Your task to perform on an android device: What's the news in India? Image 0: 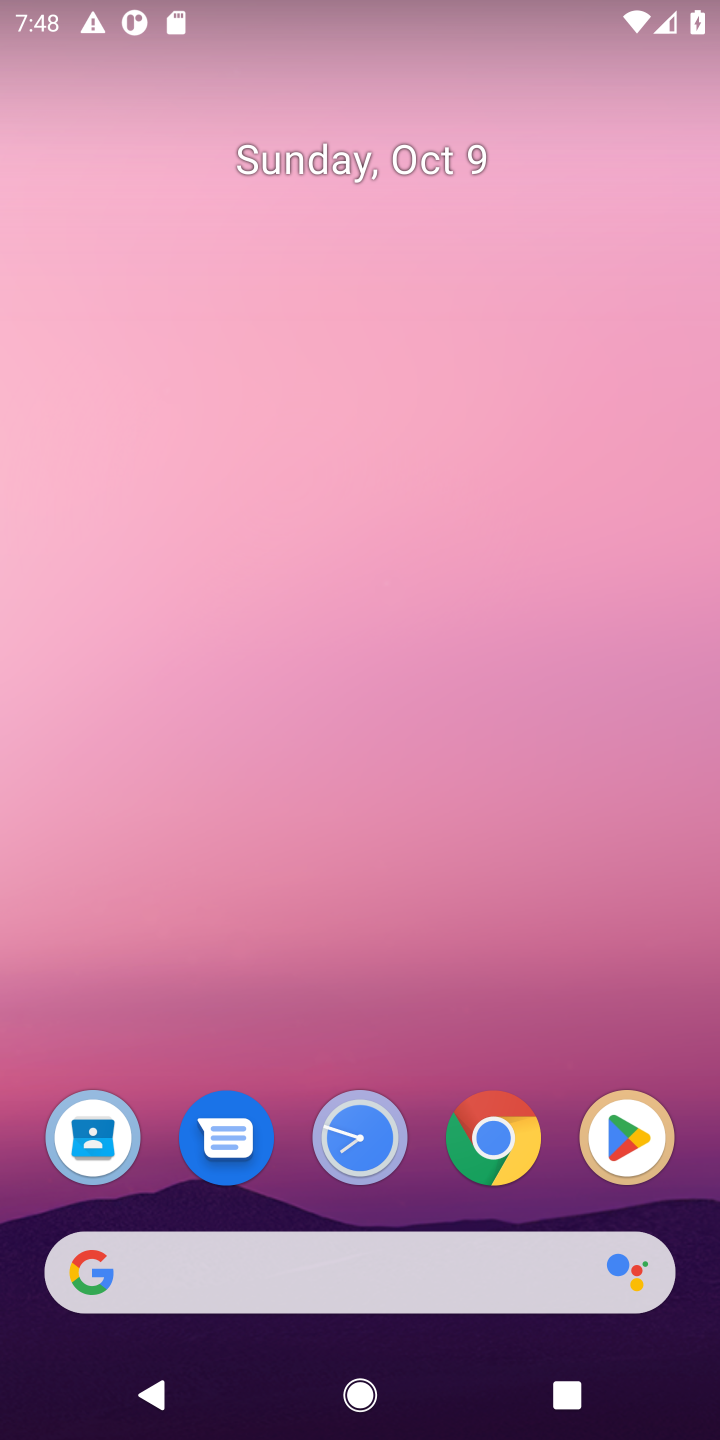
Step 0: drag from (299, 1163) to (301, 633)
Your task to perform on an android device: What's the news in India? Image 1: 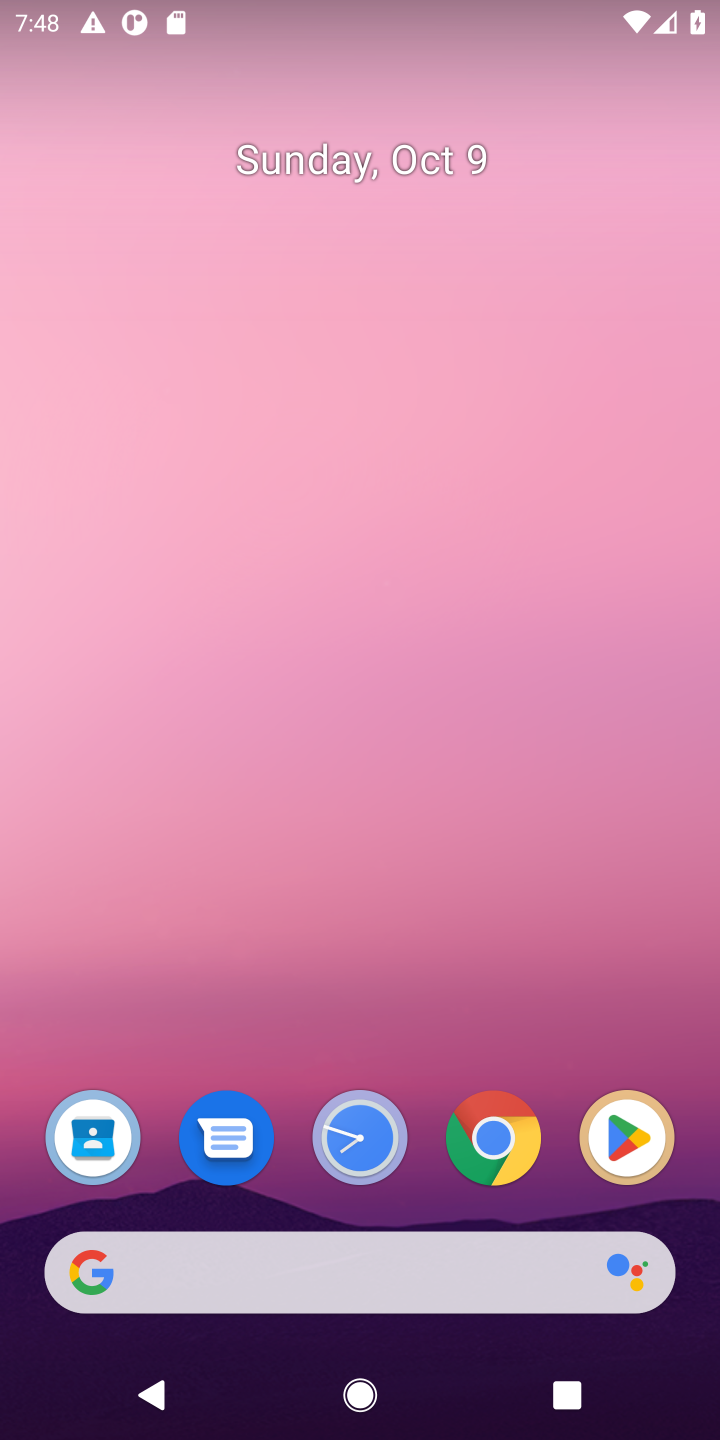
Step 1: drag from (292, 1229) to (302, 371)
Your task to perform on an android device: What's the news in India? Image 2: 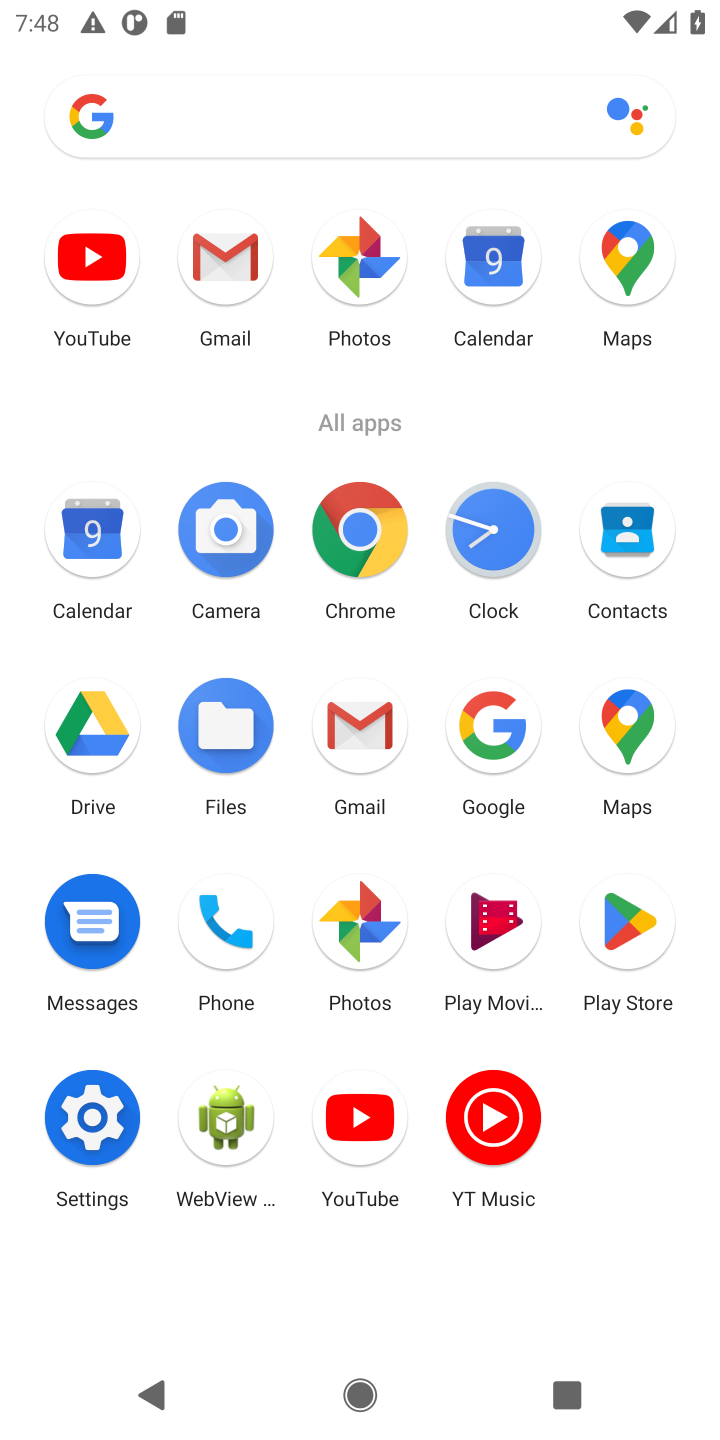
Step 2: click (484, 711)
Your task to perform on an android device: What's the news in India? Image 3: 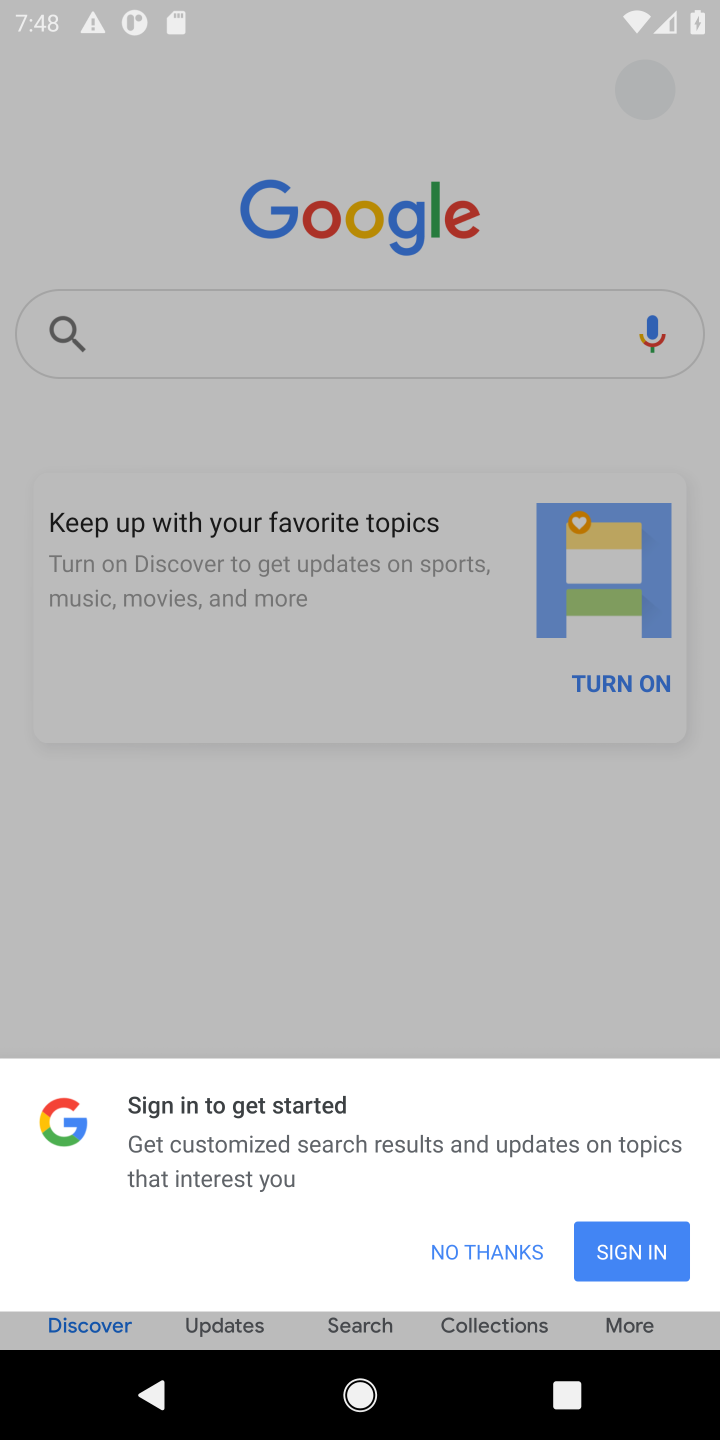
Step 3: click (265, 310)
Your task to perform on an android device: What's the news in India? Image 4: 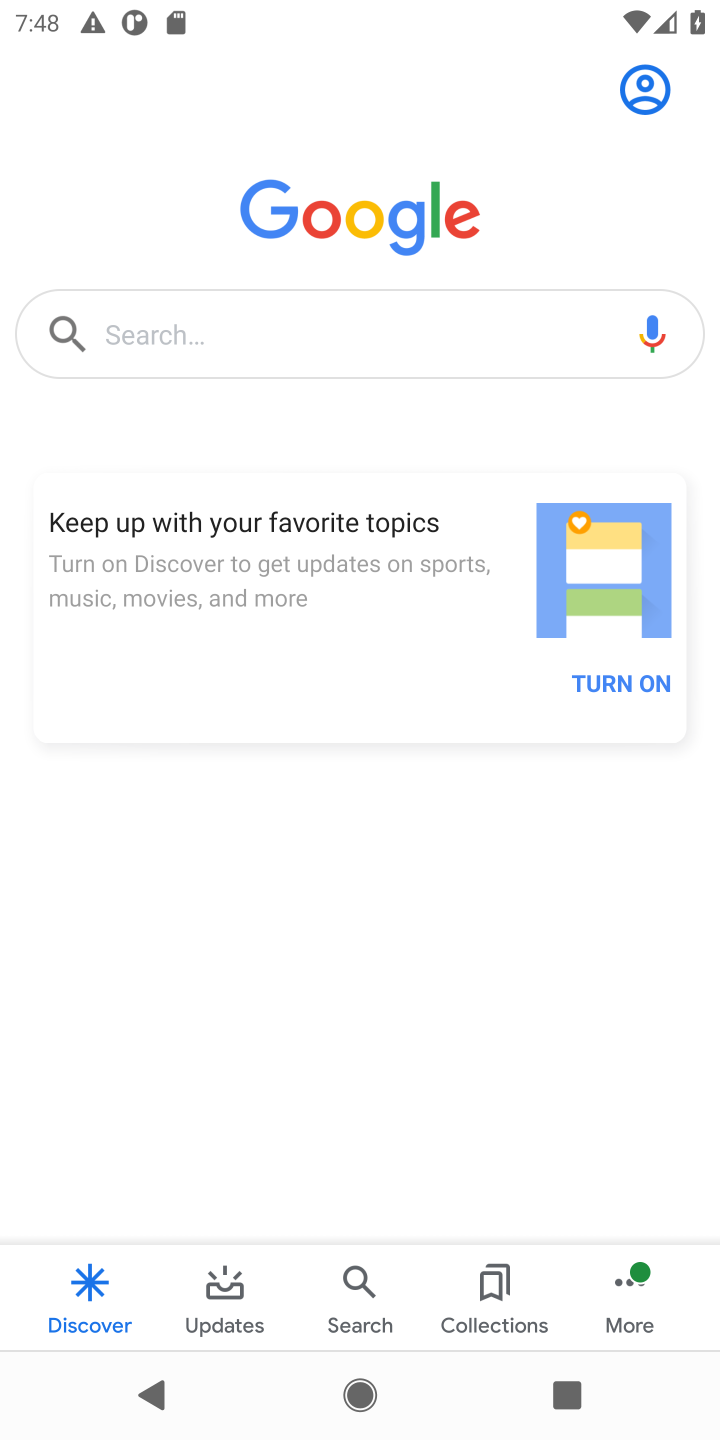
Step 4: click (354, 309)
Your task to perform on an android device: What's the news in India? Image 5: 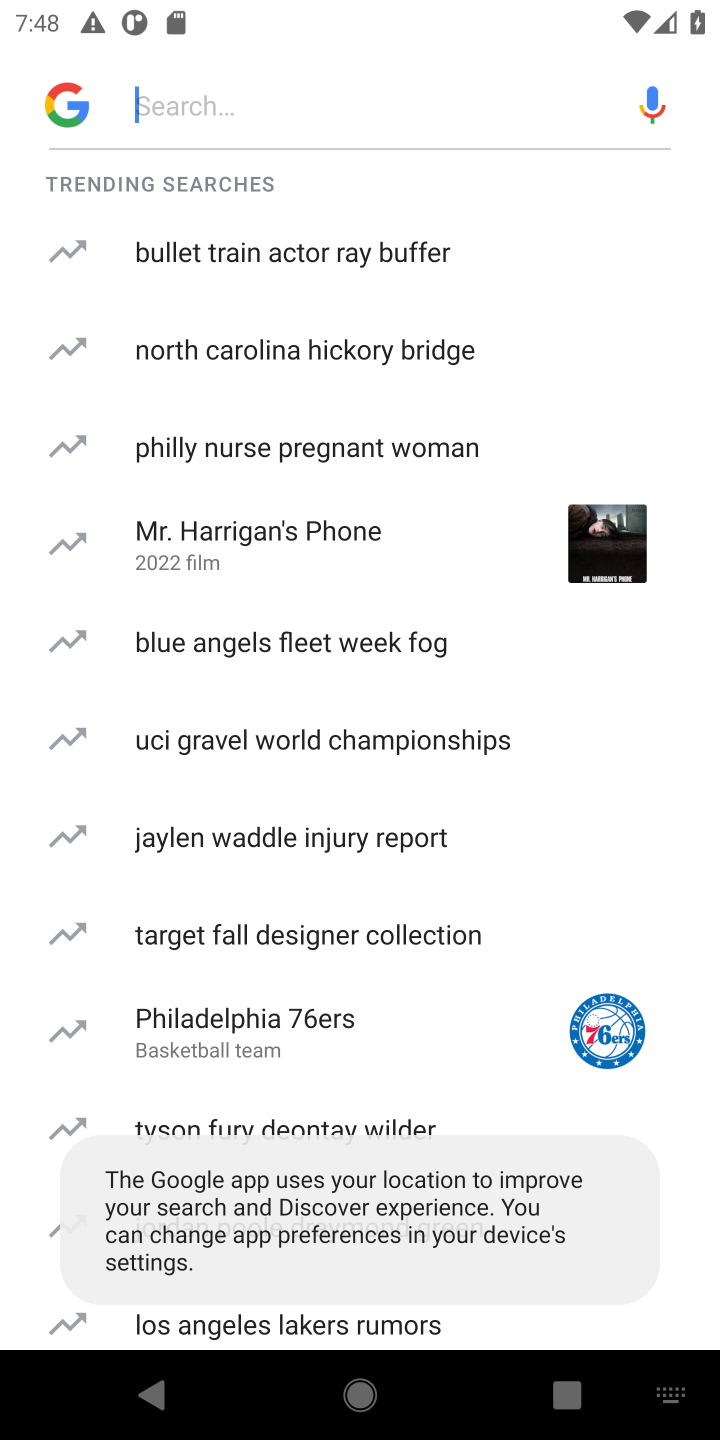
Step 5: type "What's the news in India "
Your task to perform on an android device: What's the news in India? Image 6: 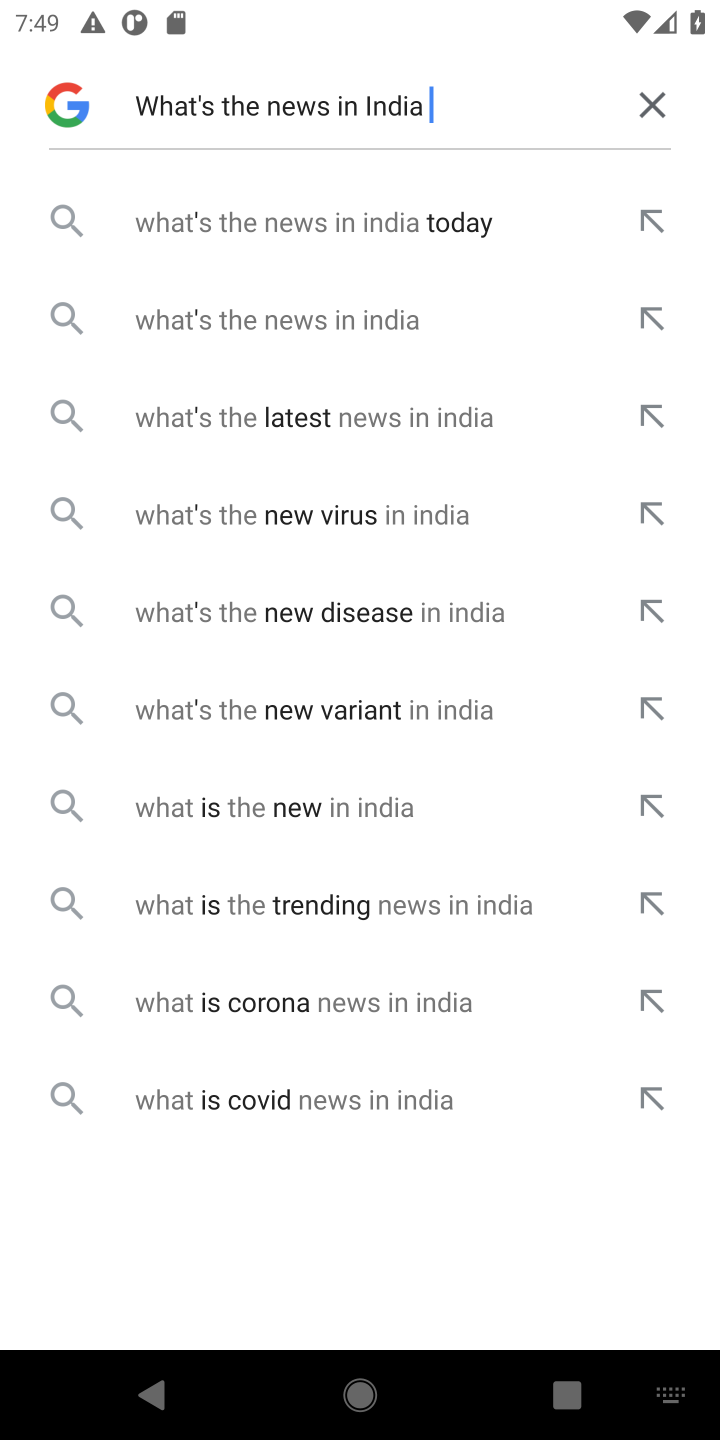
Step 6: click (297, 212)
Your task to perform on an android device: What's the news in India? Image 7: 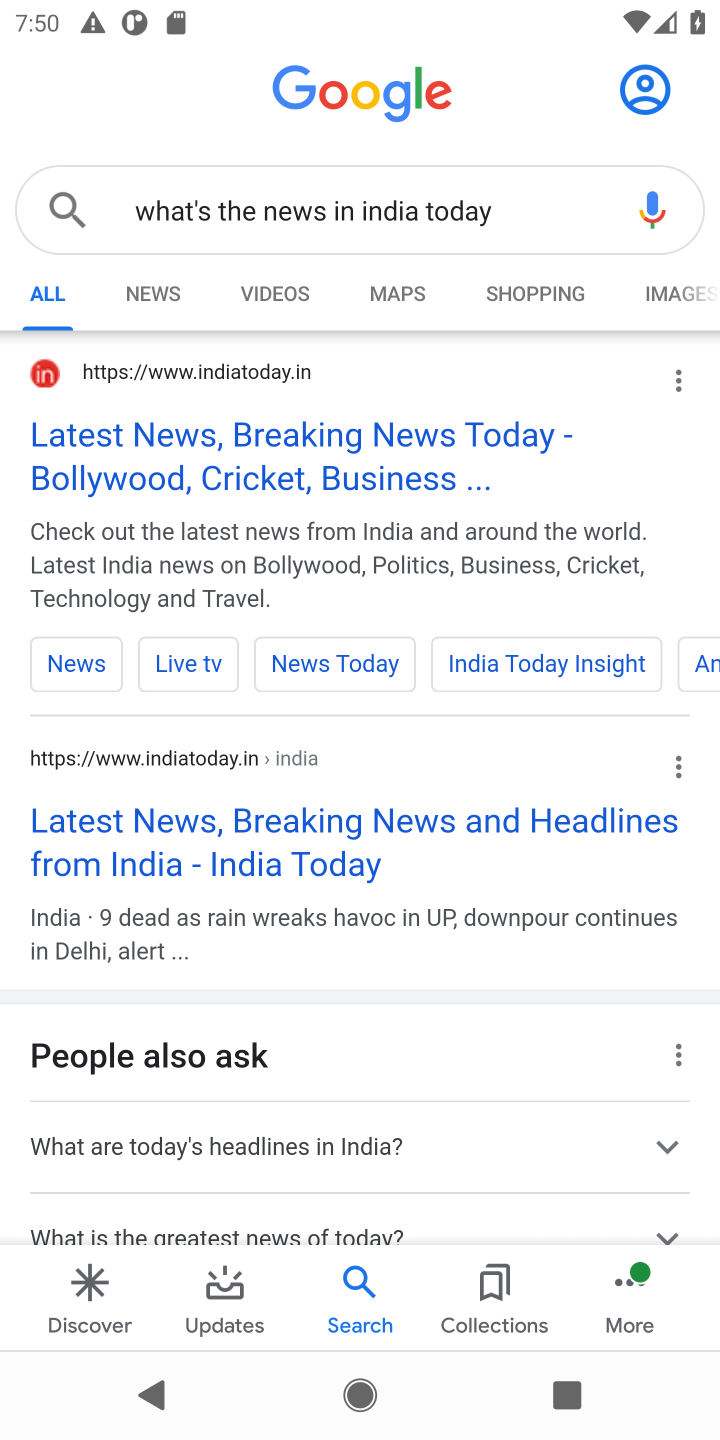
Step 7: task complete